Your task to perform on an android device: Go to eBay Image 0: 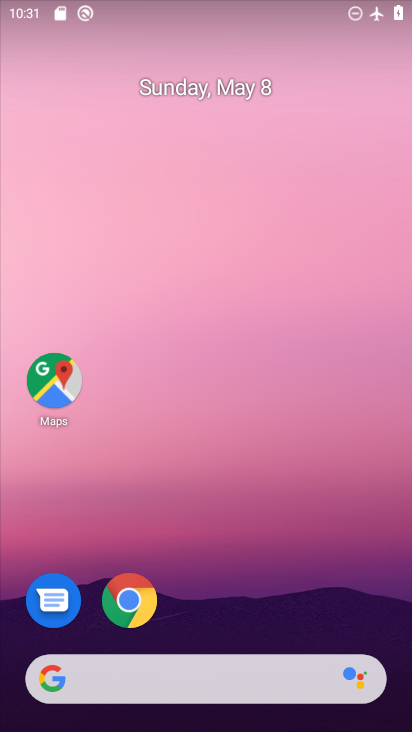
Step 0: click (130, 599)
Your task to perform on an android device: Go to eBay Image 1: 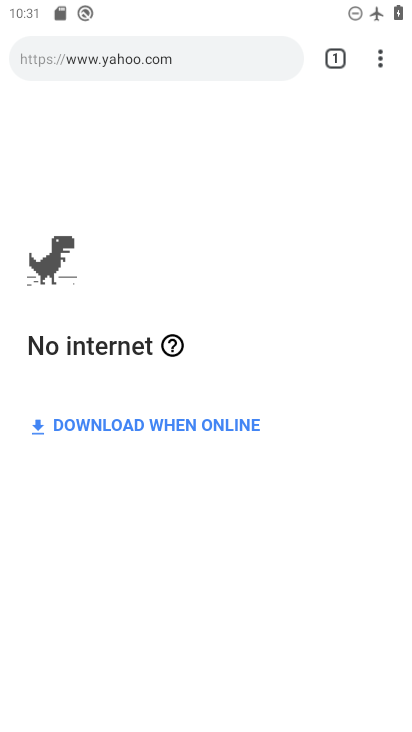
Step 1: click (381, 67)
Your task to perform on an android device: Go to eBay Image 2: 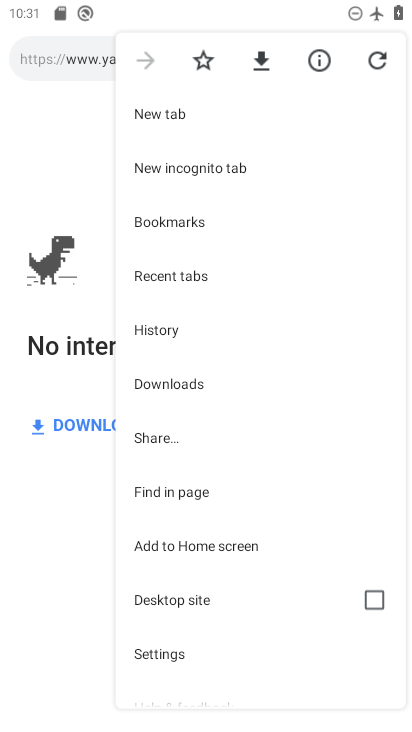
Step 2: click (161, 113)
Your task to perform on an android device: Go to eBay Image 3: 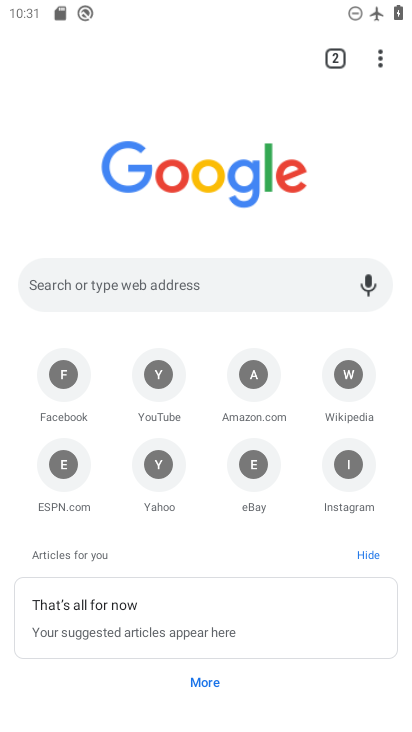
Step 3: click (261, 462)
Your task to perform on an android device: Go to eBay Image 4: 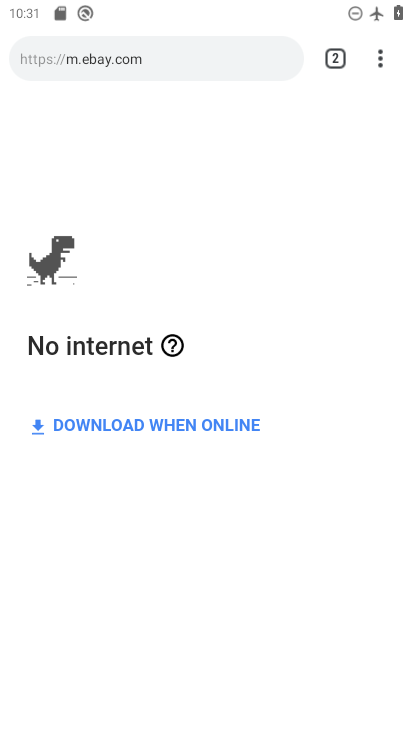
Step 4: task complete